Your task to perform on an android device: clear all cookies in the chrome app Image 0: 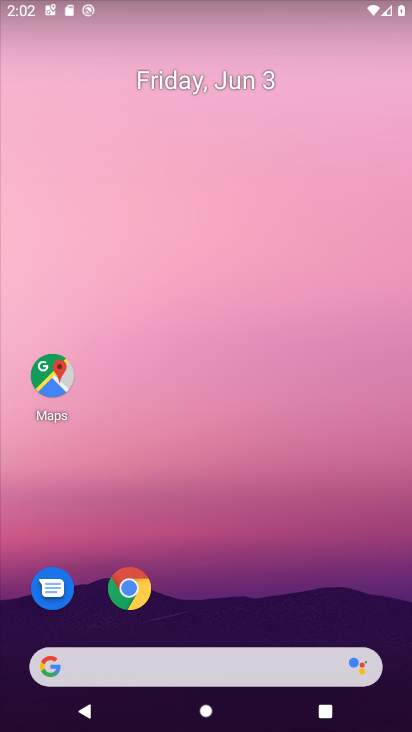
Step 0: drag from (226, 590) to (247, 201)
Your task to perform on an android device: clear all cookies in the chrome app Image 1: 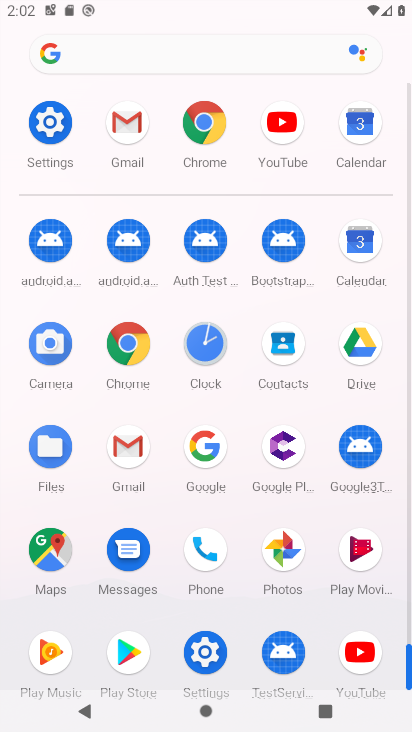
Step 1: click (202, 149)
Your task to perform on an android device: clear all cookies in the chrome app Image 2: 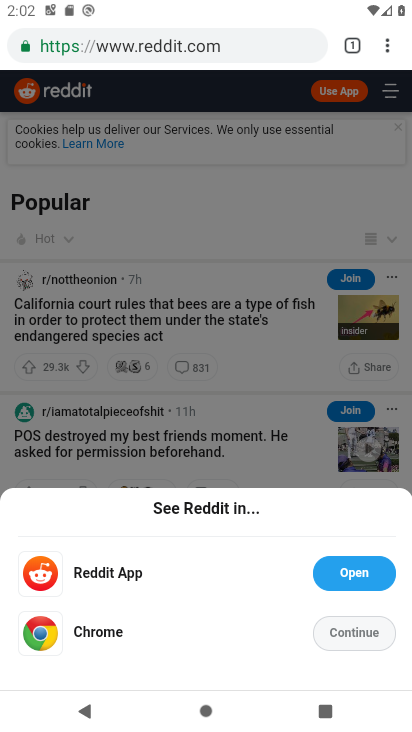
Step 2: click (385, 49)
Your task to perform on an android device: clear all cookies in the chrome app Image 3: 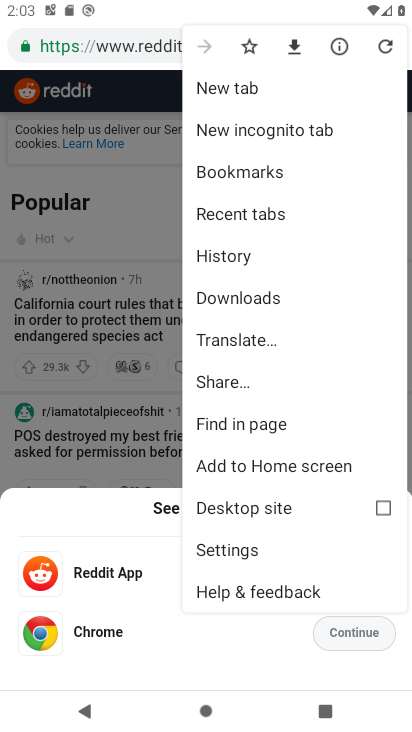
Step 3: click (212, 545)
Your task to perform on an android device: clear all cookies in the chrome app Image 4: 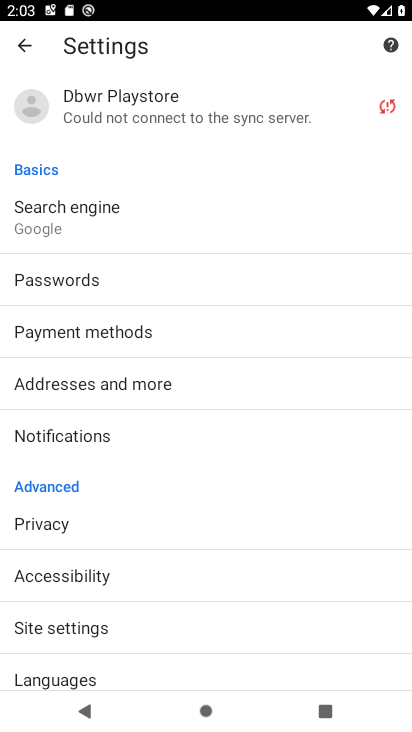
Step 4: click (77, 631)
Your task to perform on an android device: clear all cookies in the chrome app Image 5: 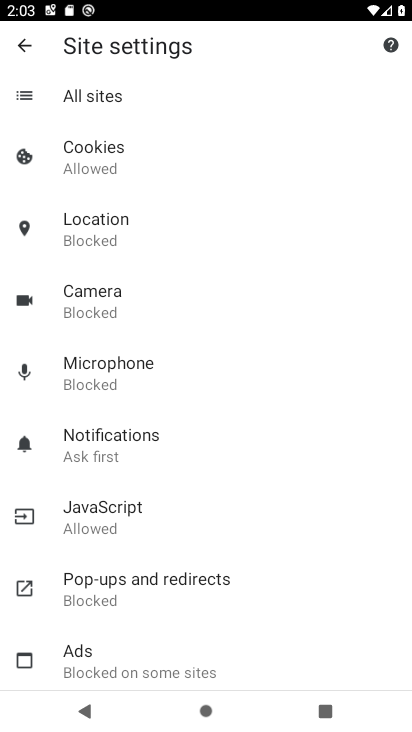
Step 5: click (98, 162)
Your task to perform on an android device: clear all cookies in the chrome app Image 6: 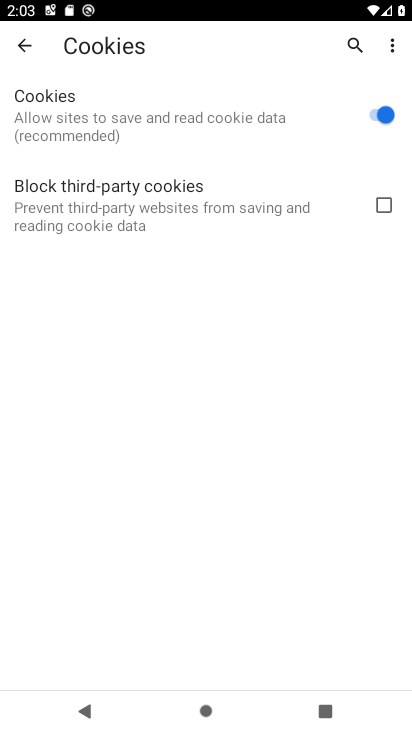
Step 6: task complete